Your task to perform on an android device: change timer sound Image 0: 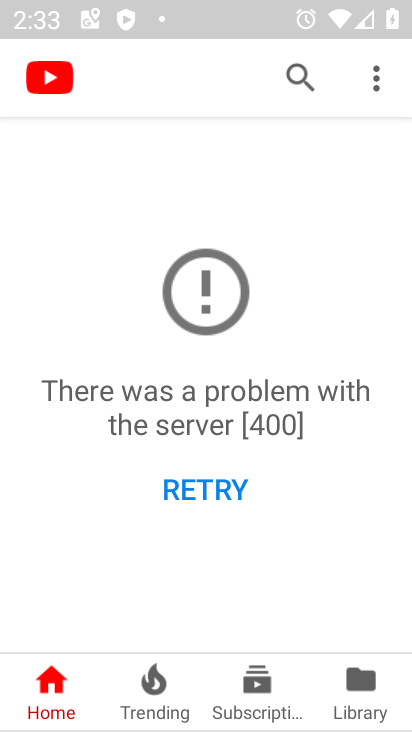
Step 0: press home button
Your task to perform on an android device: change timer sound Image 1: 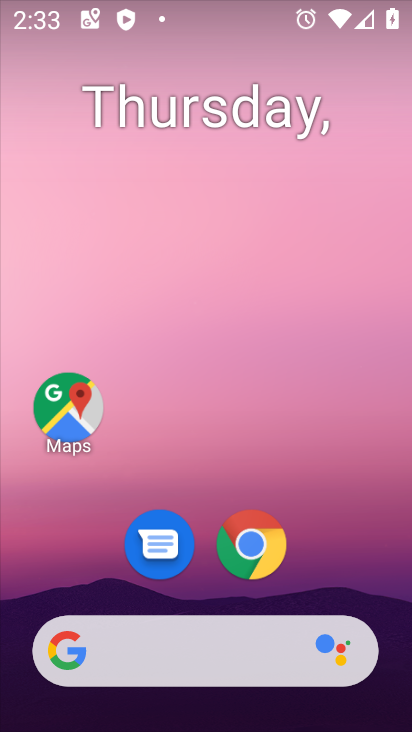
Step 1: drag from (313, 568) to (371, 215)
Your task to perform on an android device: change timer sound Image 2: 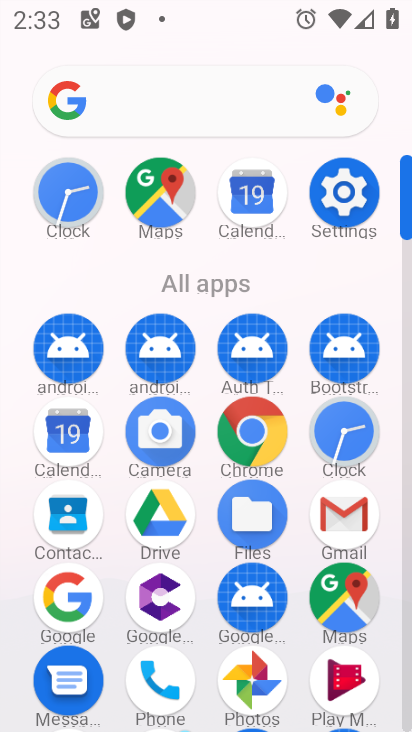
Step 2: click (337, 418)
Your task to perform on an android device: change timer sound Image 3: 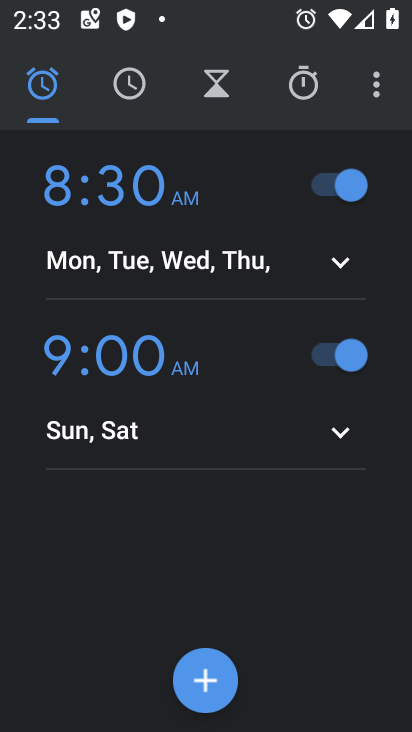
Step 3: click (373, 82)
Your task to perform on an android device: change timer sound Image 4: 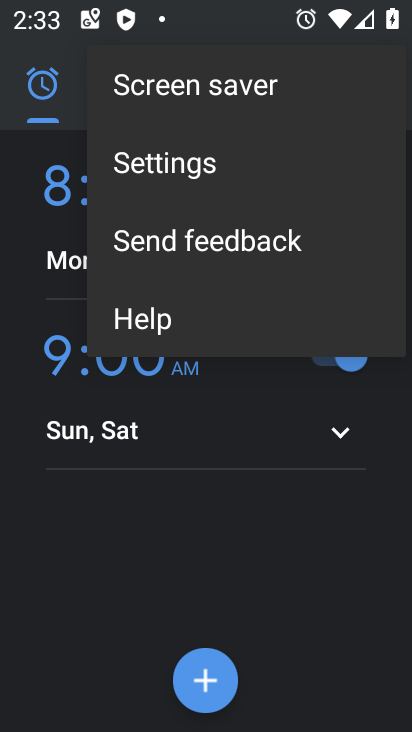
Step 4: click (212, 148)
Your task to perform on an android device: change timer sound Image 5: 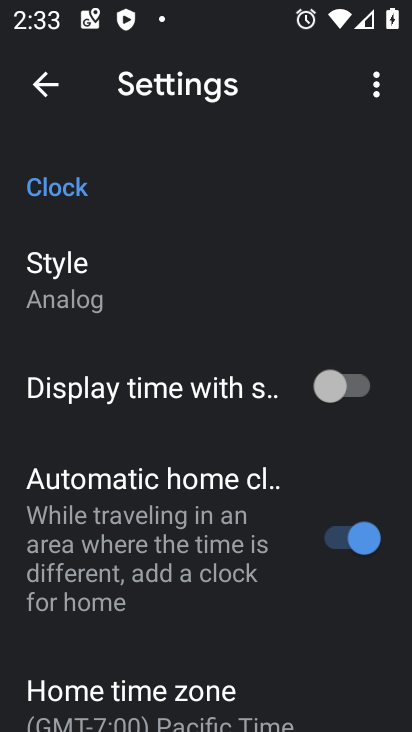
Step 5: drag from (236, 646) to (282, 325)
Your task to perform on an android device: change timer sound Image 6: 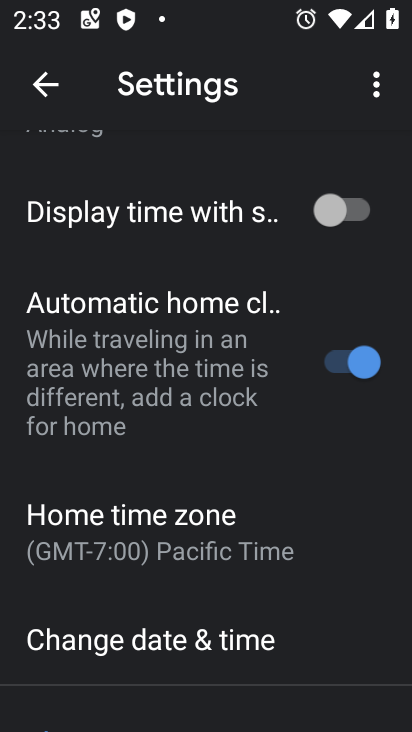
Step 6: drag from (321, 539) to (328, 344)
Your task to perform on an android device: change timer sound Image 7: 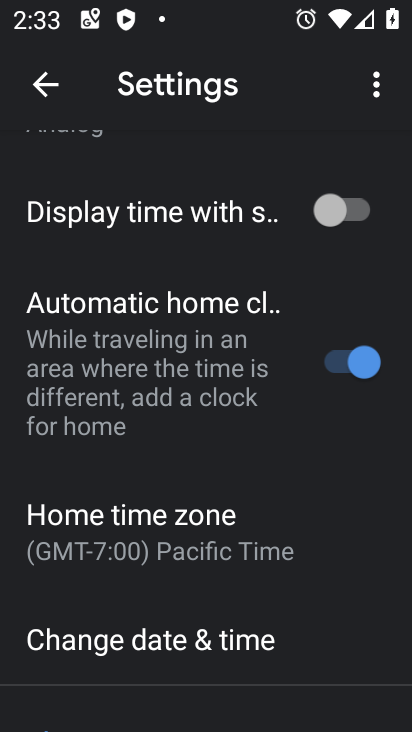
Step 7: drag from (332, 558) to (340, 370)
Your task to perform on an android device: change timer sound Image 8: 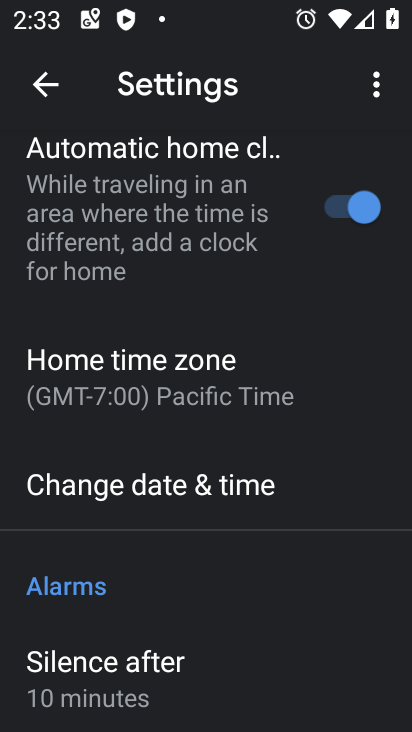
Step 8: drag from (270, 596) to (282, 397)
Your task to perform on an android device: change timer sound Image 9: 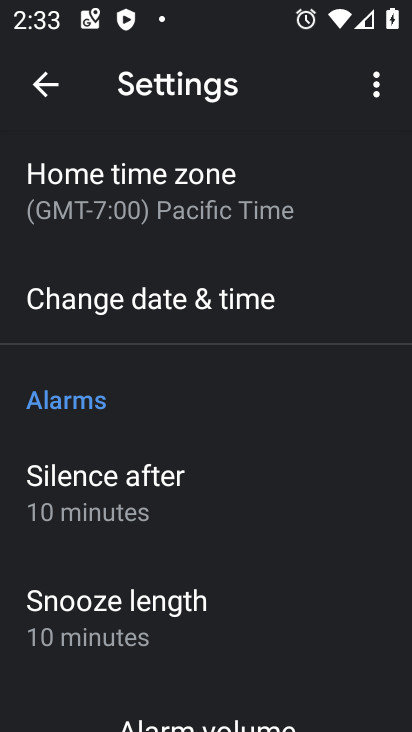
Step 9: drag from (280, 595) to (294, 360)
Your task to perform on an android device: change timer sound Image 10: 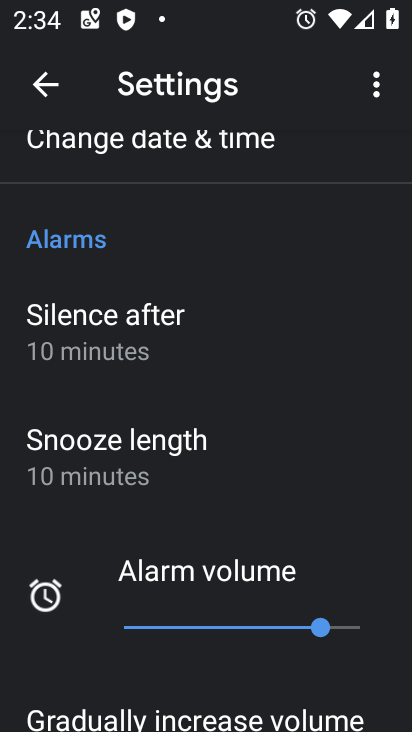
Step 10: drag from (323, 533) to (320, 360)
Your task to perform on an android device: change timer sound Image 11: 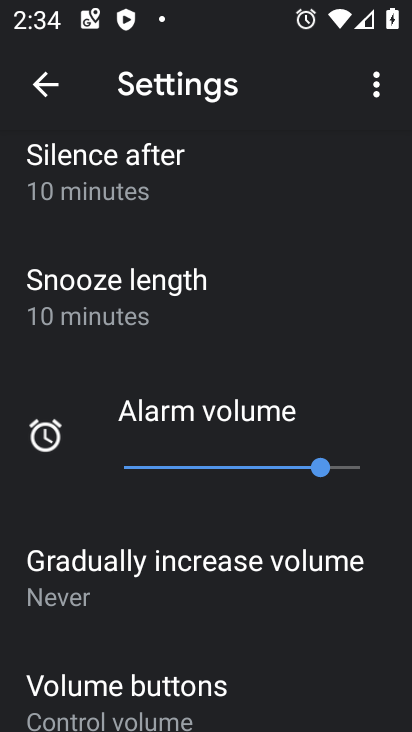
Step 11: drag from (285, 654) to (313, 442)
Your task to perform on an android device: change timer sound Image 12: 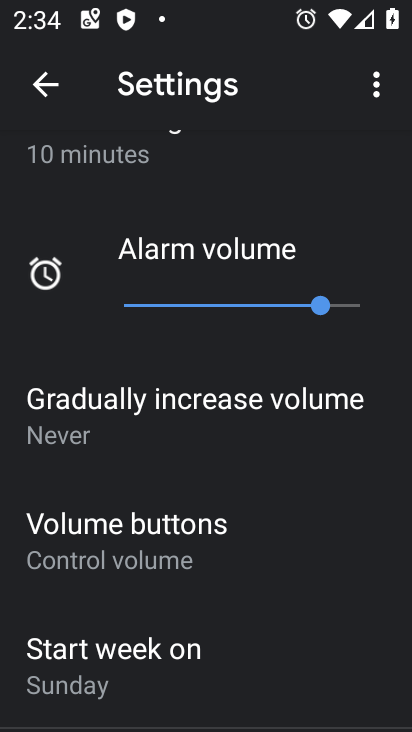
Step 12: drag from (303, 552) to (324, 319)
Your task to perform on an android device: change timer sound Image 13: 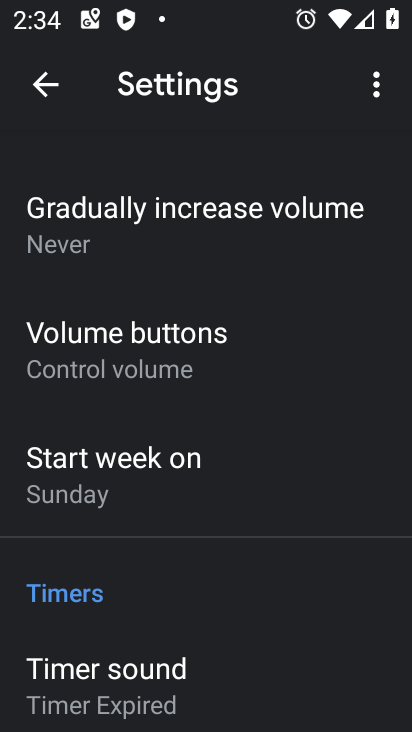
Step 13: click (135, 655)
Your task to perform on an android device: change timer sound Image 14: 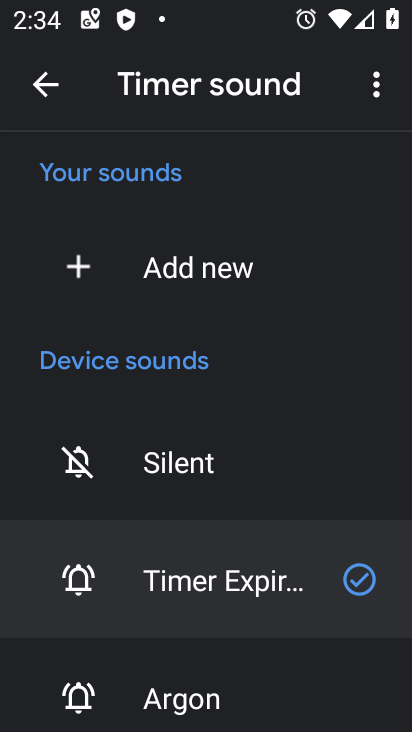
Step 14: click (170, 680)
Your task to perform on an android device: change timer sound Image 15: 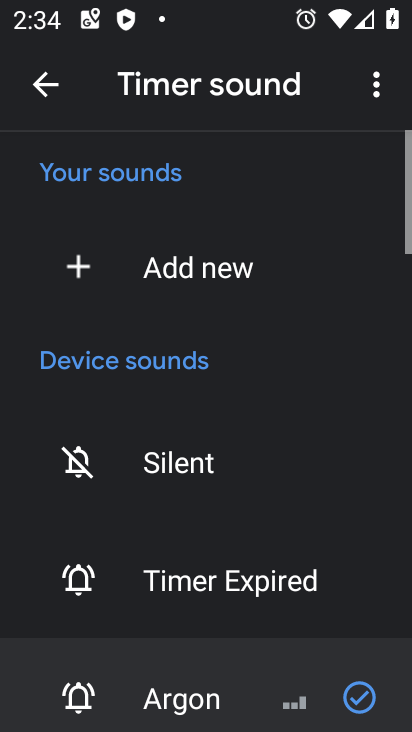
Step 15: task complete